Your task to perform on an android device: Turn off the flashlight Image 0: 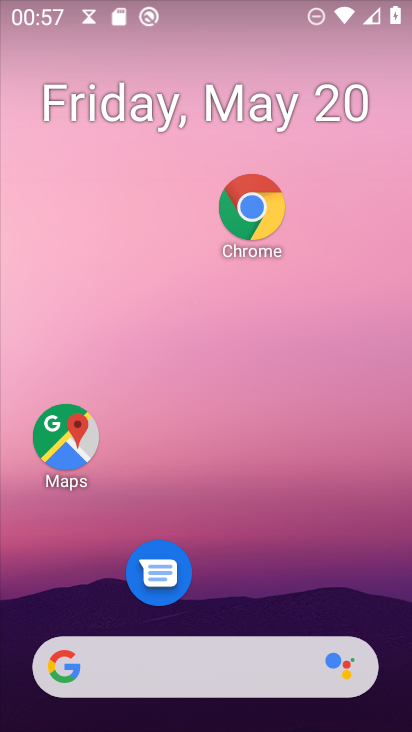
Step 0: drag from (286, 576) to (292, 13)
Your task to perform on an android device: Turn off the flashlight Image 1: 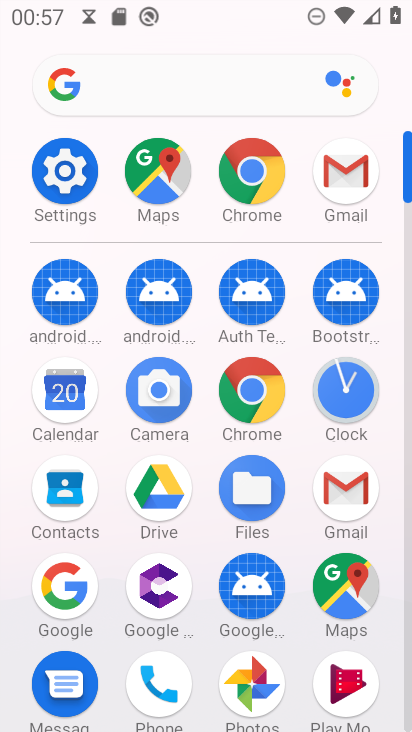
Step 1: click (72, 171)
Your task to perform on an android device: Turn off the flashlight Image 2: 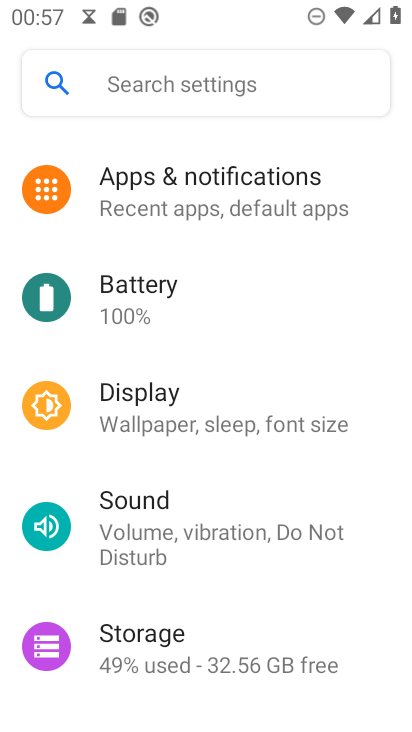
Step 2: task complete